Your task to perform on an android device: toggle translation in the chrome app Image 0: 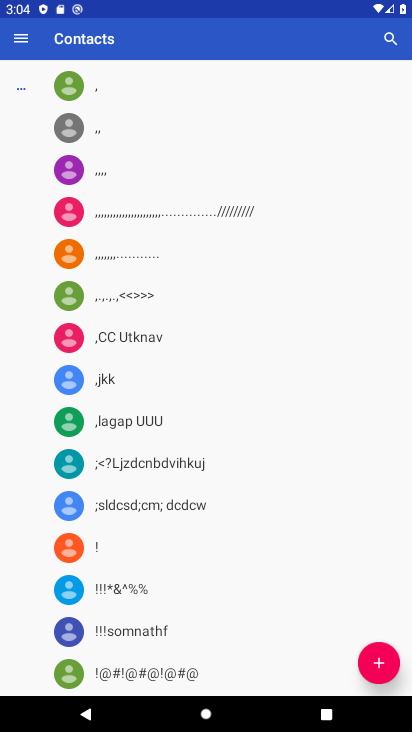
Step 0: press home button
Your task to perform on an android device: toggle translation in the chrome app Image 1: 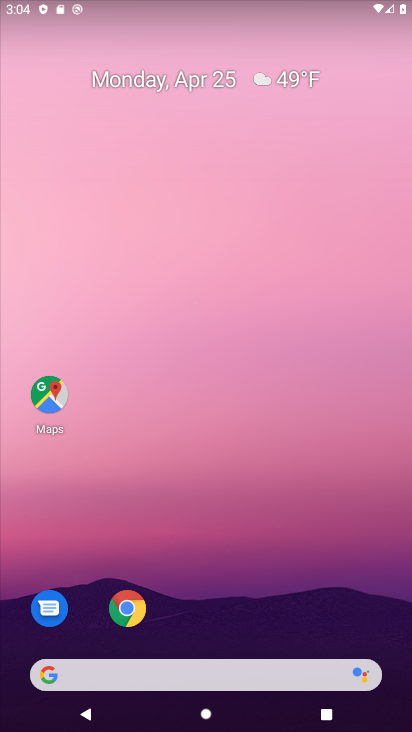
Step 1: click (154, 606)
Your task to perform on an android device: toggle translation in the chrome app Image 2: 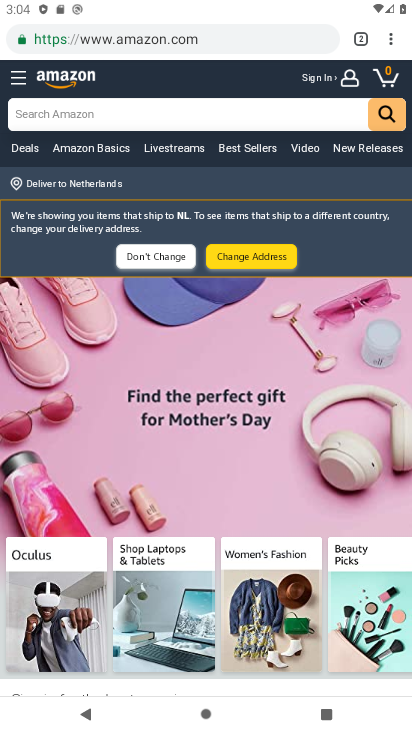
Step 2: click (397, 41)
Your task to perform on an android device: toggle translation in the chrome app Image 3: 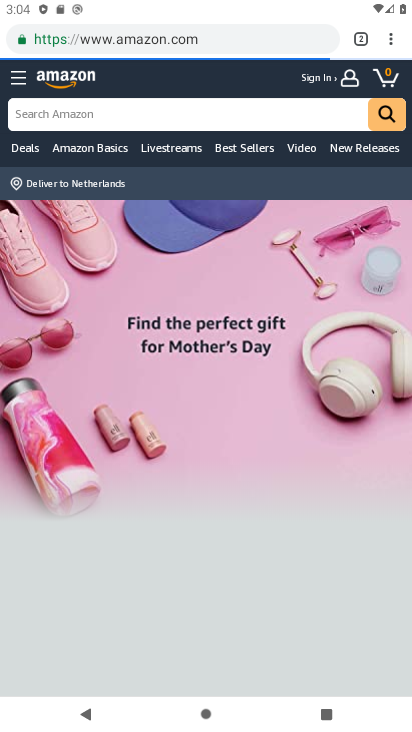
Step 3: drag from (397, 41) to (260, 472)
Your task to perform on an android device: toggle translation in the chrome app Image 4: 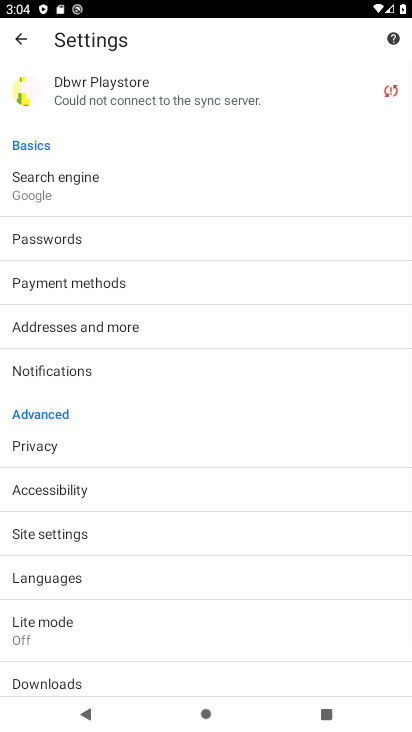
Step 4: click (72, 588)
Your task to perform on an android device: toggle translation in the chrome app Image 5: 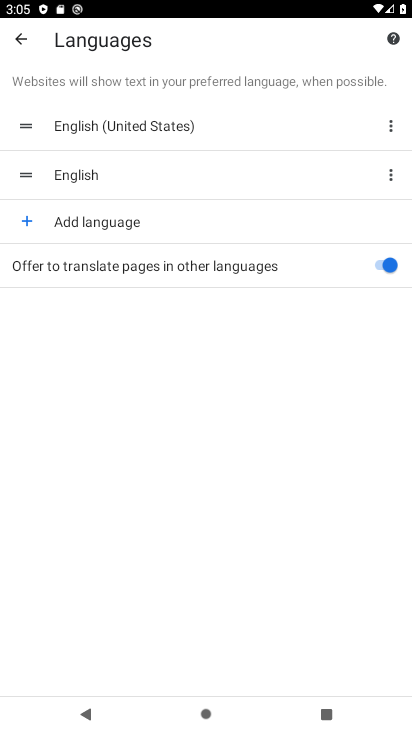
Step 5: click (380, 274)
Your task to perform on an android device: toggle translation in the chrome app Image 6: 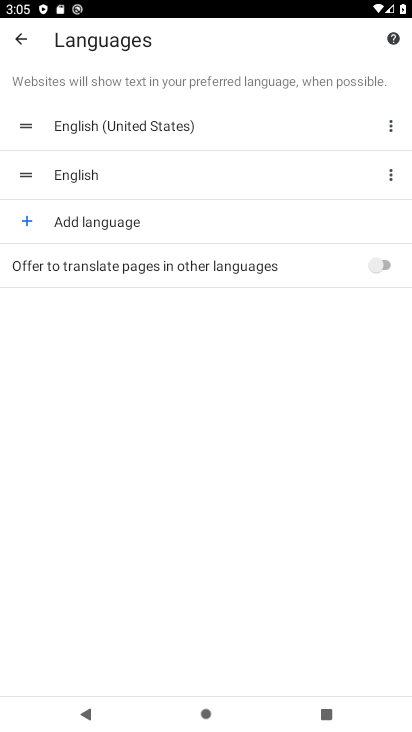
Step 6: task complete